Your task to perform on an android device: Open privacy settings Image 0: 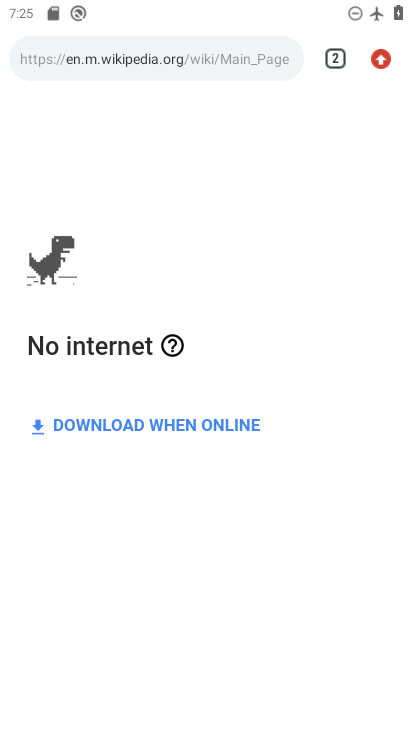
Step 0: press home button
Your task to perform on an android device: Open privacy settings Image 1: 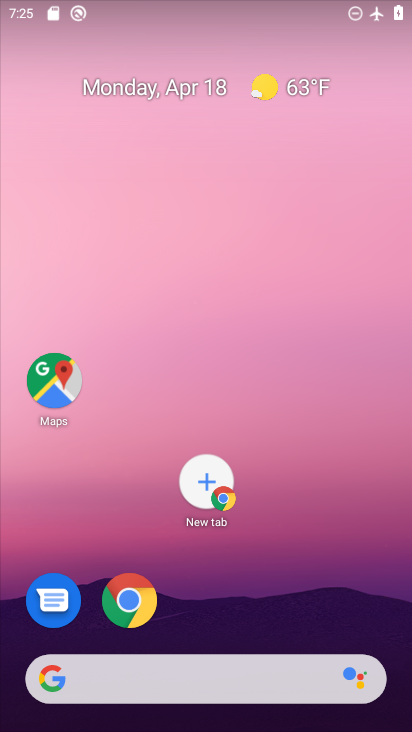
Step 1: drag from (287, 602) to (238, 8)
Your task to perform on an android device: Open privacy settings Image 2: 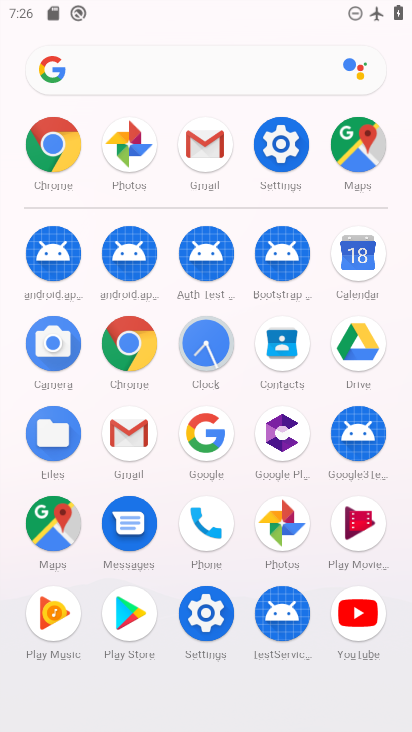
Step 2: click (277, 146)
Your task to perform on an android device: Open privacy settings Image 3: 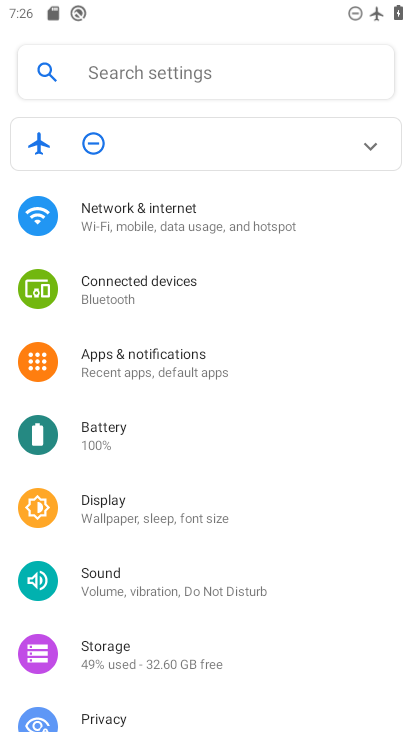
Step 3: drag from (246, 678) to (256, 218)
Your task to perform on an android device: Open privacy settings Image 4: 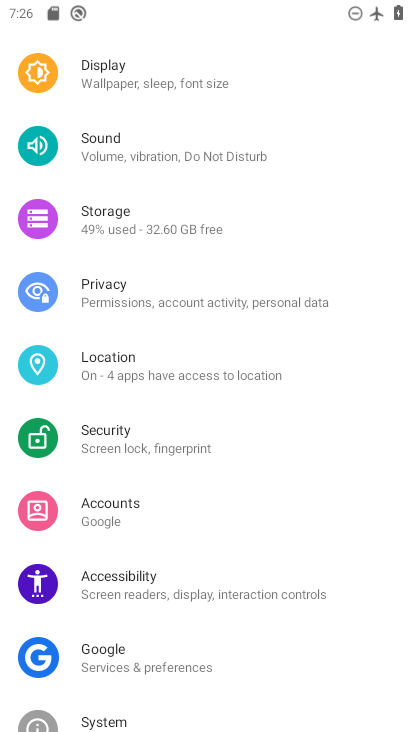
Step 4: click (111, 286)
Your task to perform on an android device: Open privacy settings Image 5: 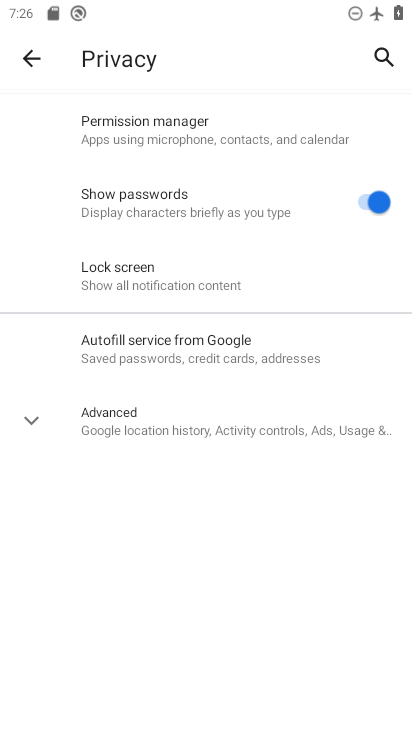
Step 5: task complete